Your task to perform on an android device: Clear the shopping cart on walmart. Image 0: 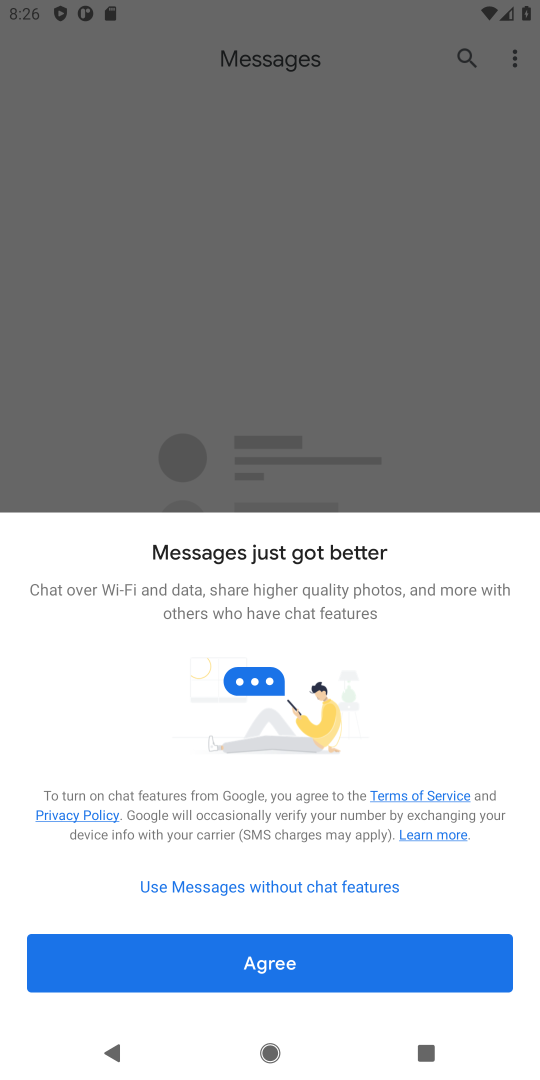
Step 0: press home button
Your task to perform on an android device: Clear the shopping cart on walmart. Image 1: 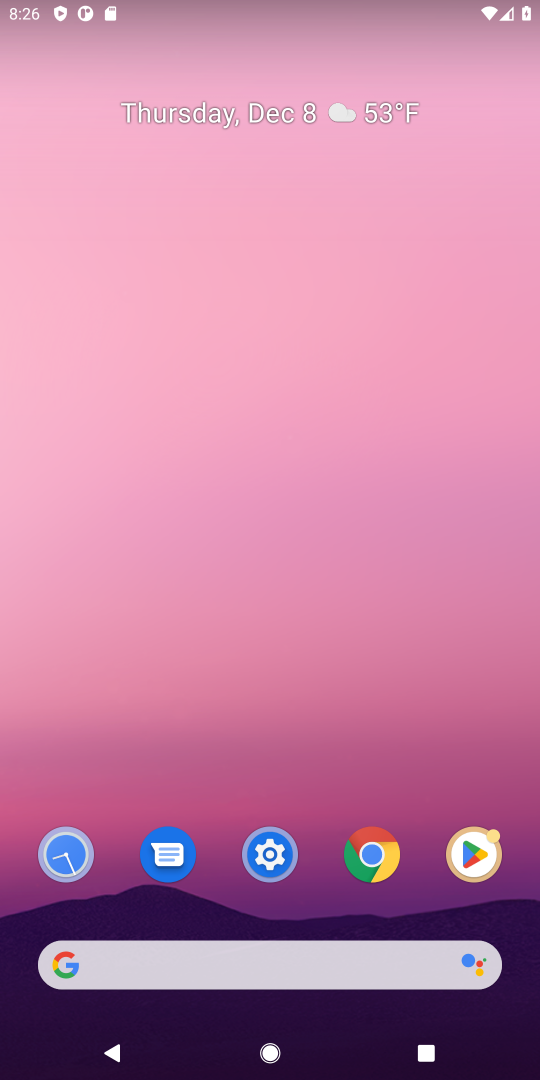
Step 1: click (95, 962)
Your task to perform on an android device: Clear the shopping cart on walmart. Image 2: 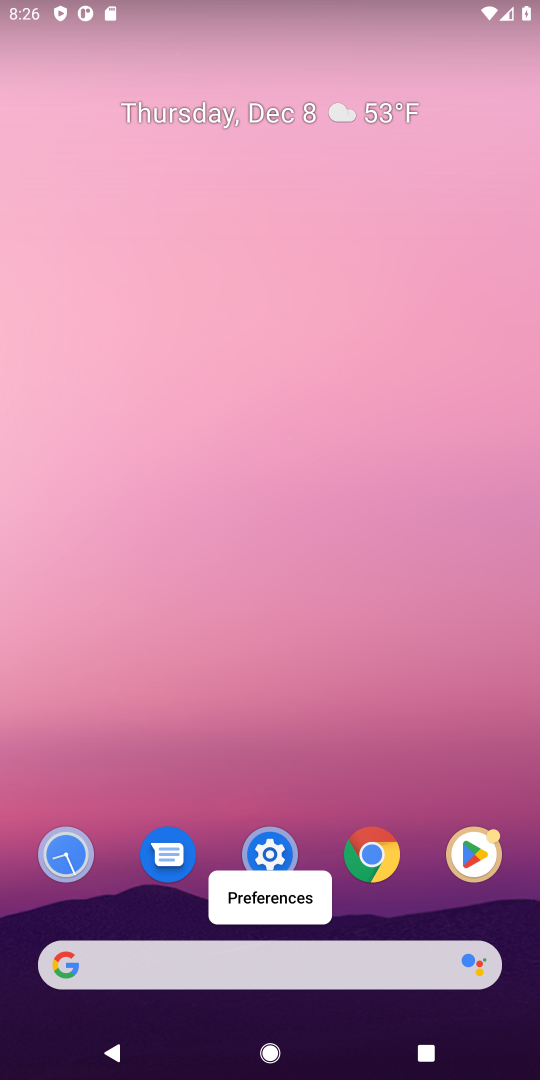
Step 2: click (92, 959)
Your task to perform on an android device: Clear the shopping cart on walmart. Image 3: 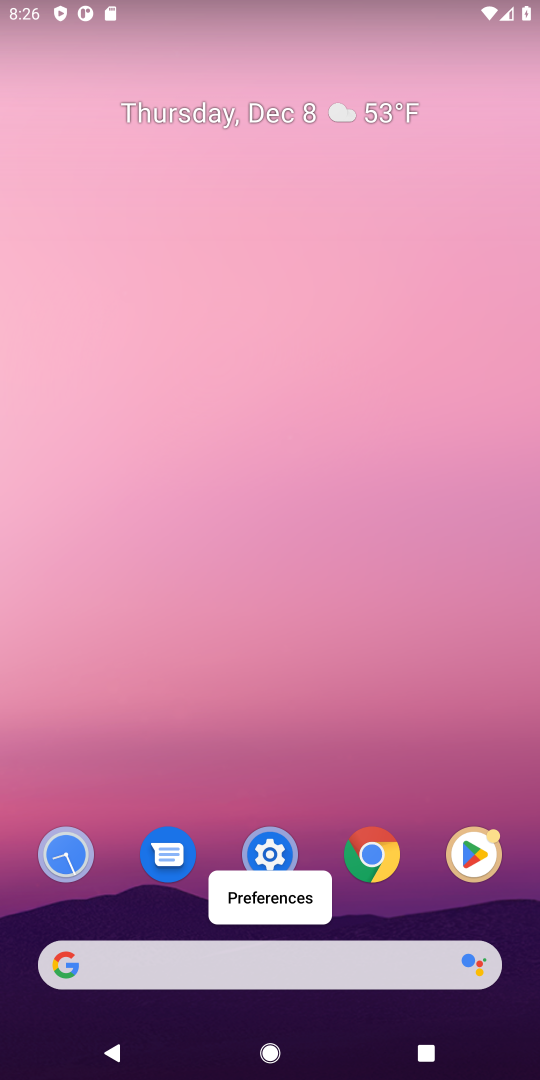
Step 3: click (87, 972)
Your task to perform on an android device: Clear the shopping cart on walmart. Image 4: 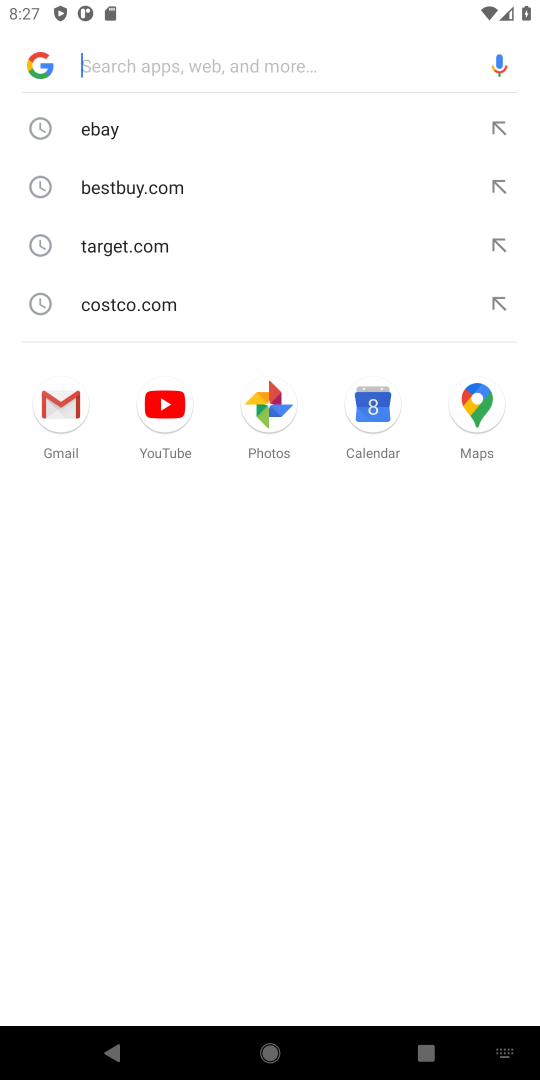
Step 4: type "walmart"
Your task to perform on an android device: Clear the shopping cart on walmart. Image 5: 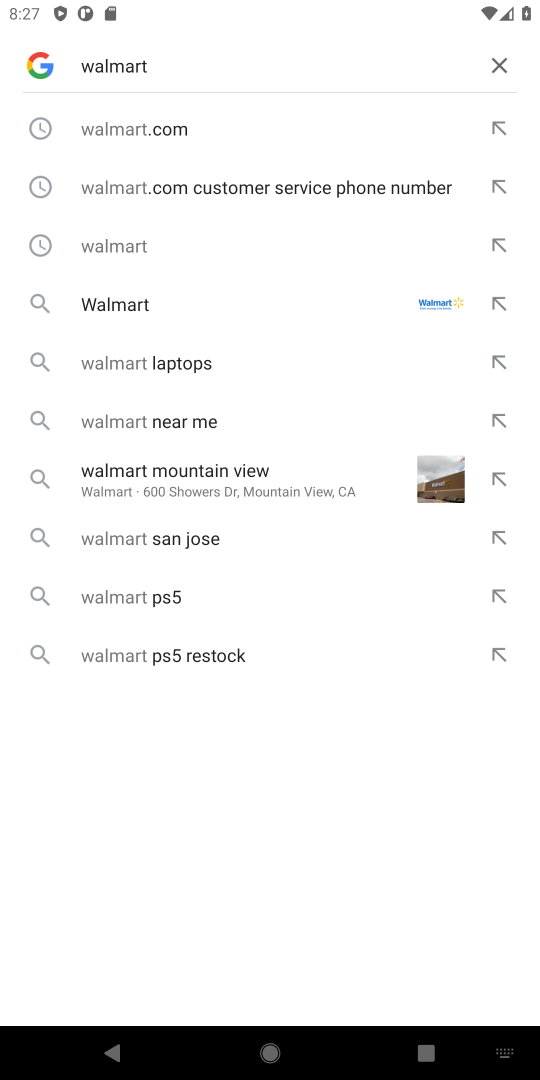
Step 5: press enter
Your task to perform on an android device: Clear the shopping cart on walmart. Image 6: 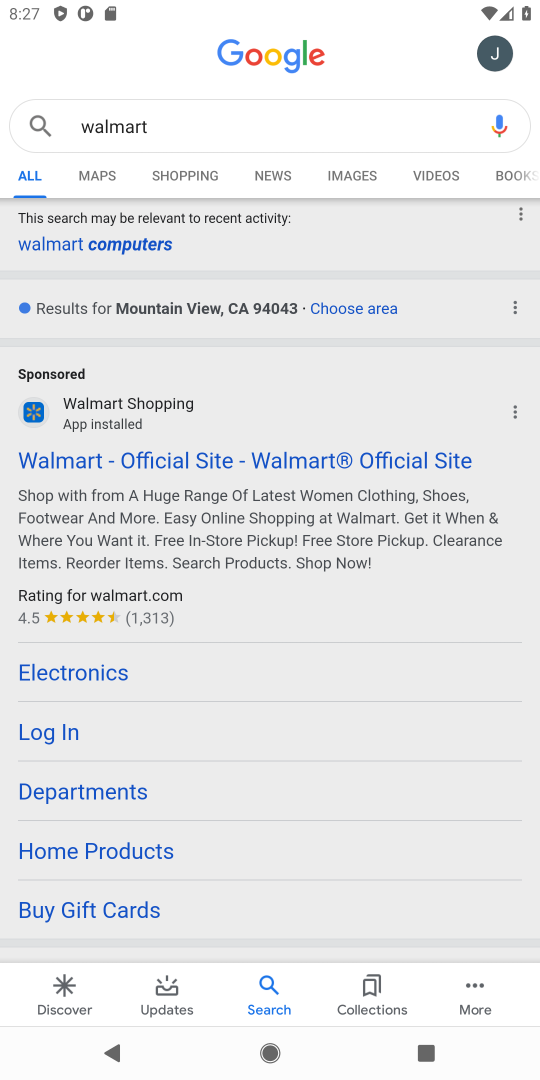
Step 6: click (138, 463)
Your task to perform on an android device: Clear the shopping cart on walmart. Image 7: 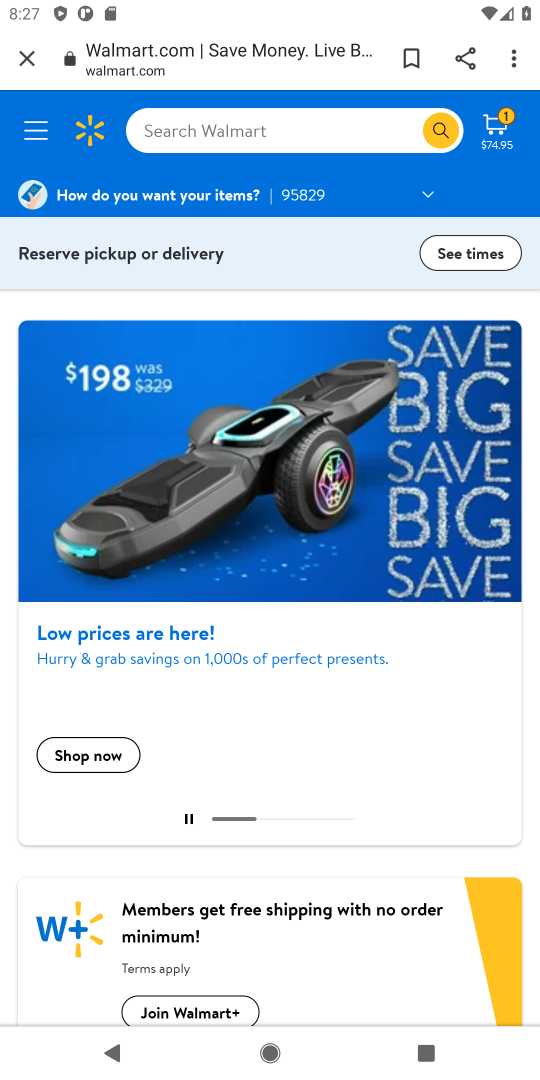
Step 7: click (498, 123)
Your task to perform on an android device: Clear the shopping cart on walmart. Image 8: 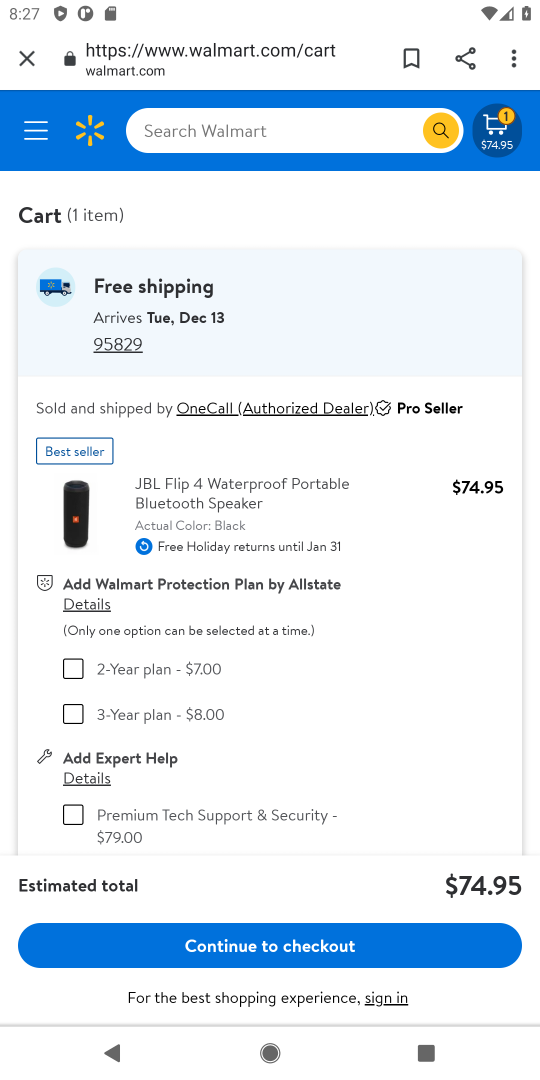
Step 8: drag from (342, 756) to (345, 361)
Your task to perform on an android device: Clear the shopping cart on walmart. Image 9: 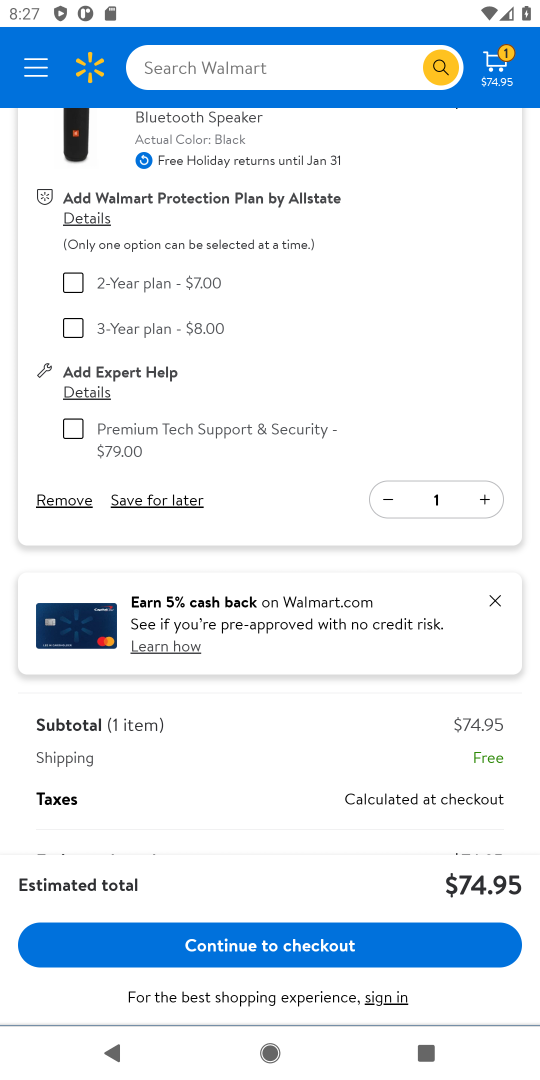
Step 9: click (63, 498)
Your task to perform on an android device: Clear the shopping cart on walmart. Image 10: 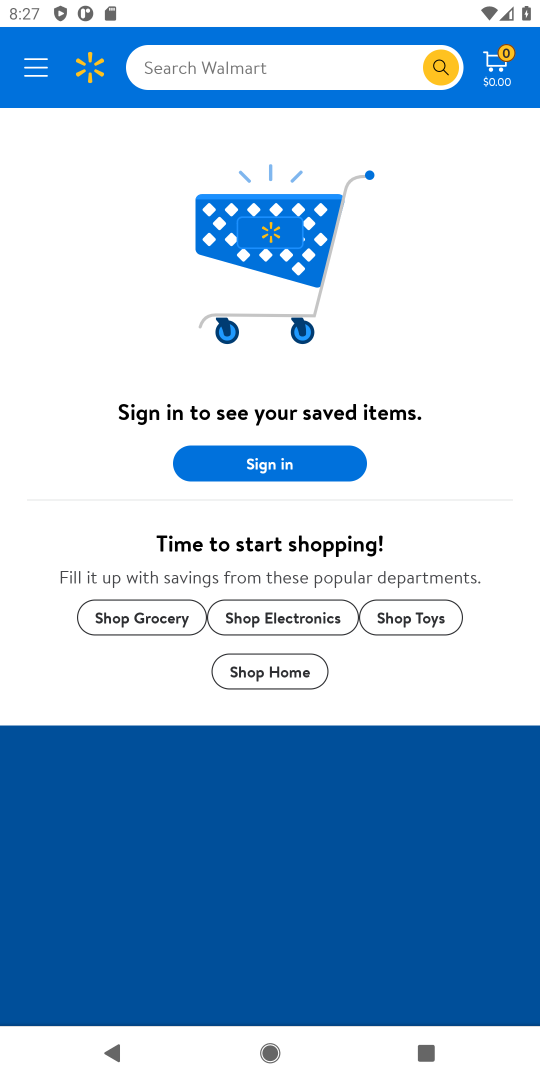
Step 10: task complete